Your task to perform on an android device: turn off notifications in google photos Image 0: 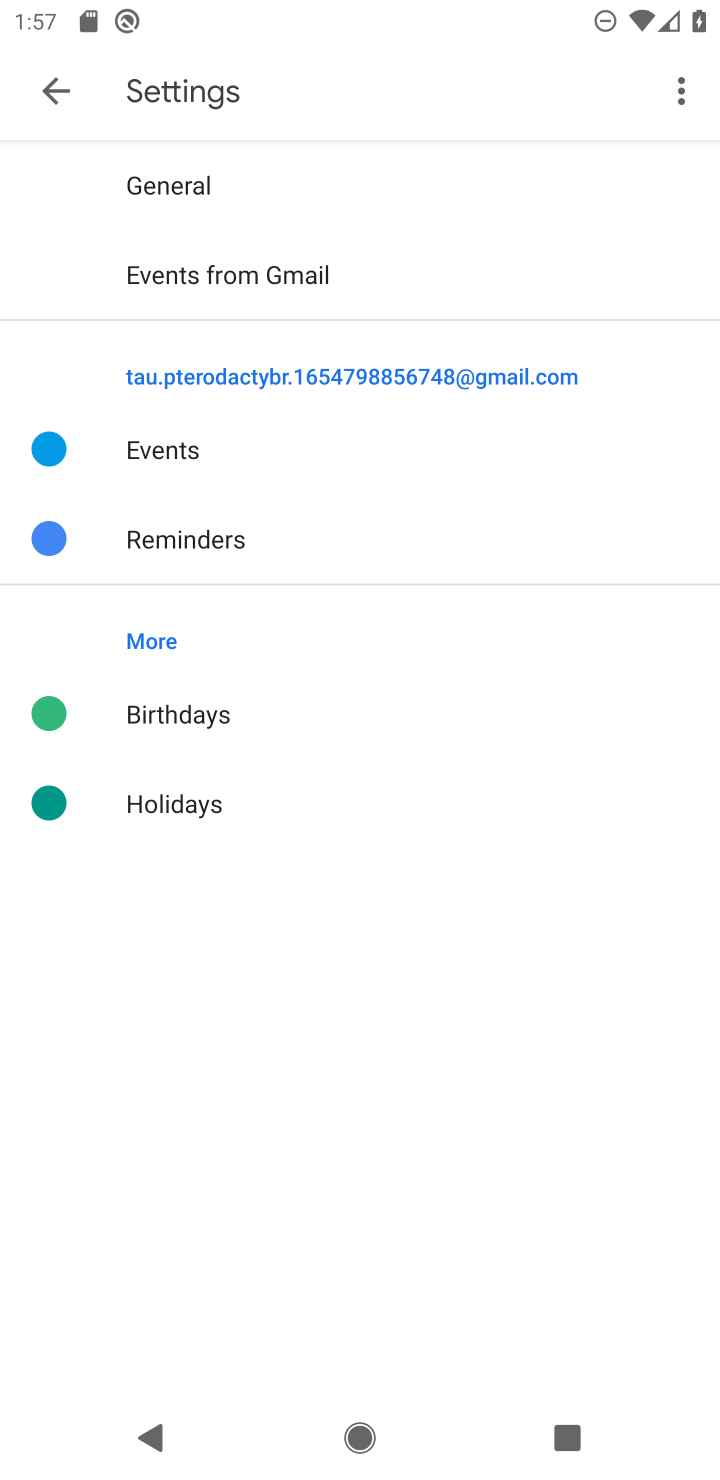
Step 0: press home button
Your task to perform on an android device: turn off notifications in google photos Image 1: 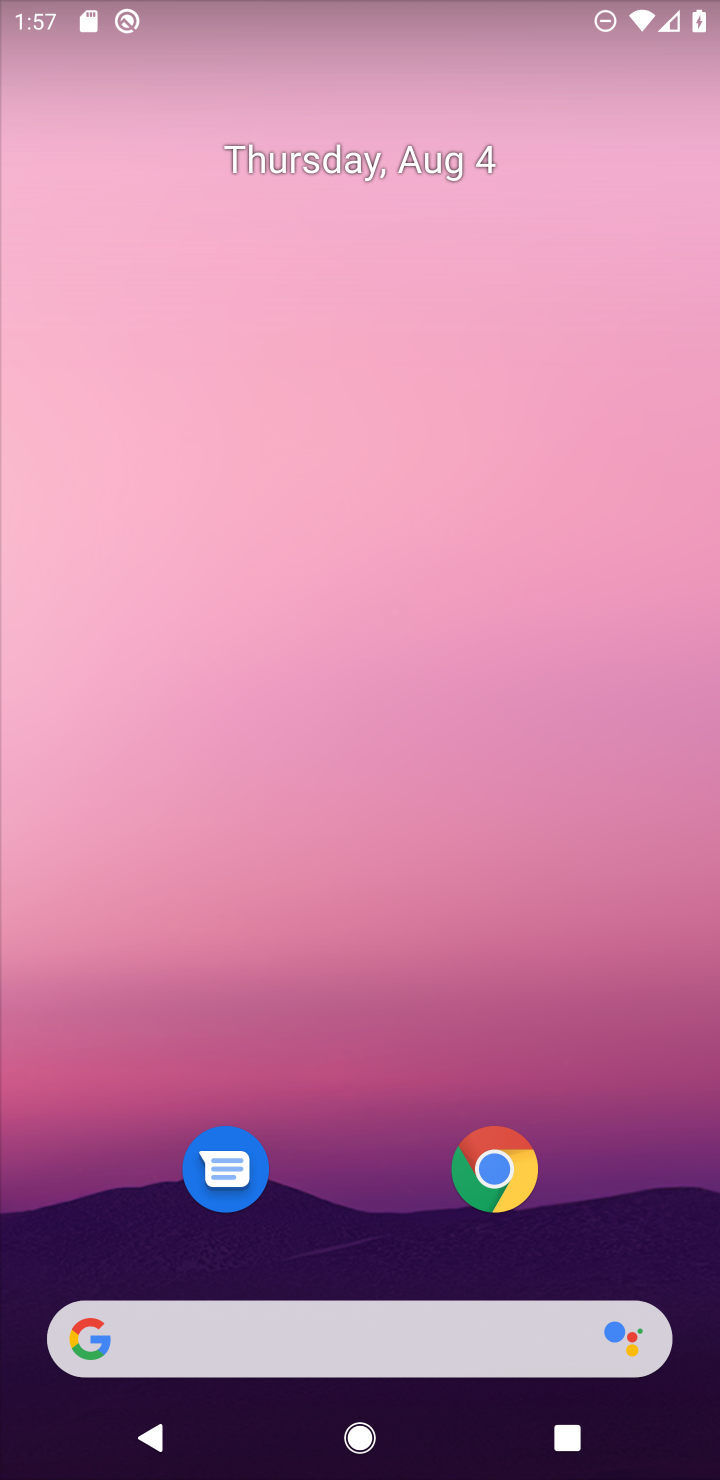
Step 1: drag from (385, 1072) to (488, 33)
Your task to perform on an android device: turn off notifications in google photos Image 2: 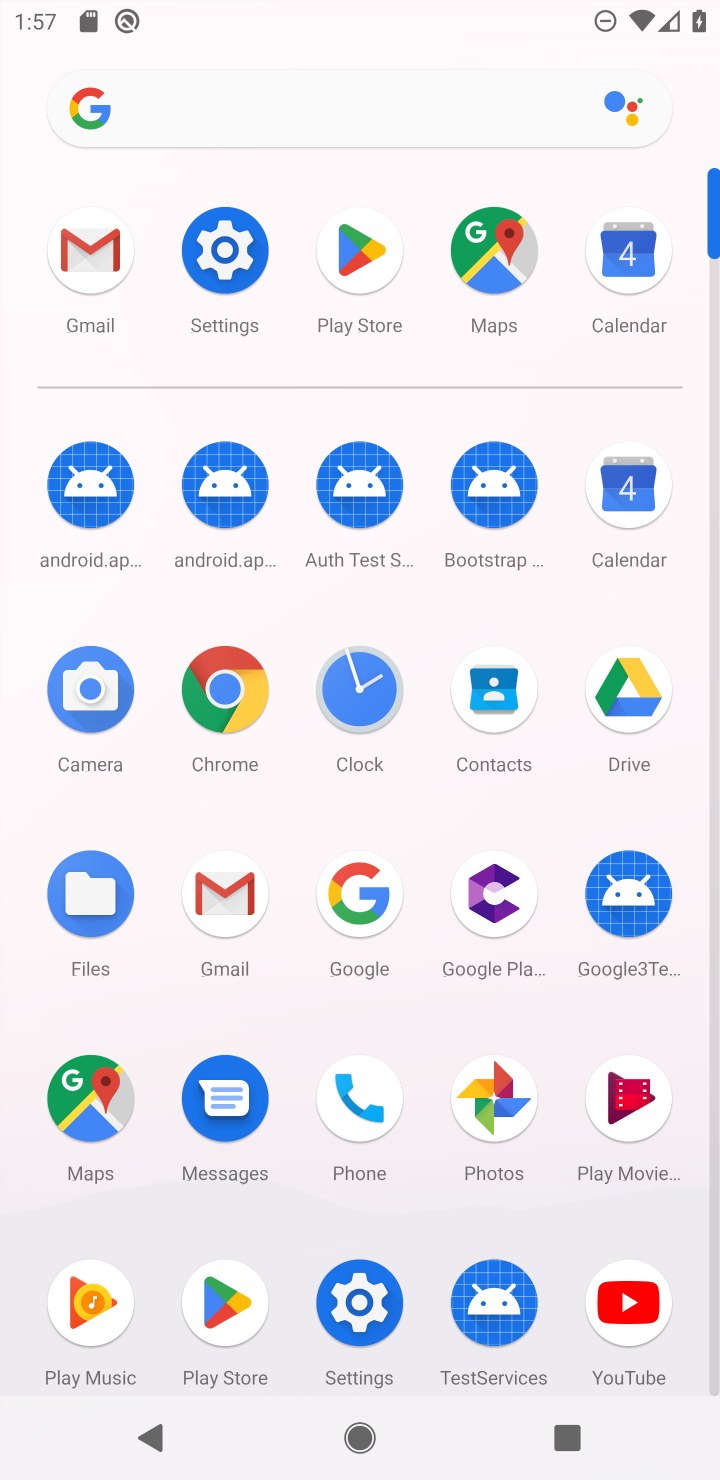
Step 2: click (493, 1113)
Your task to perform on an android device: turn off notifications in google photos Image 3: 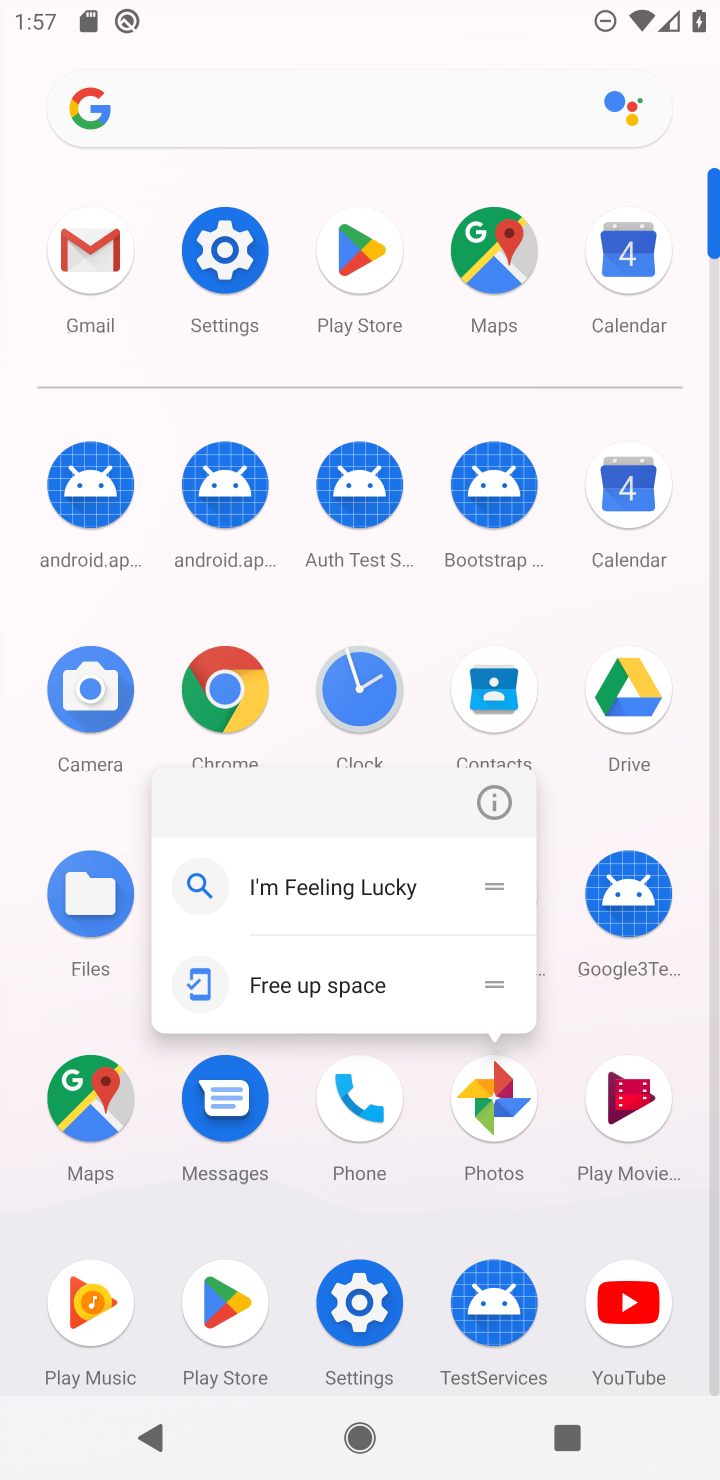
Step 3: click (497, 1110)
Your task to perform on an android device: turn off notifications in google photos Image 4: 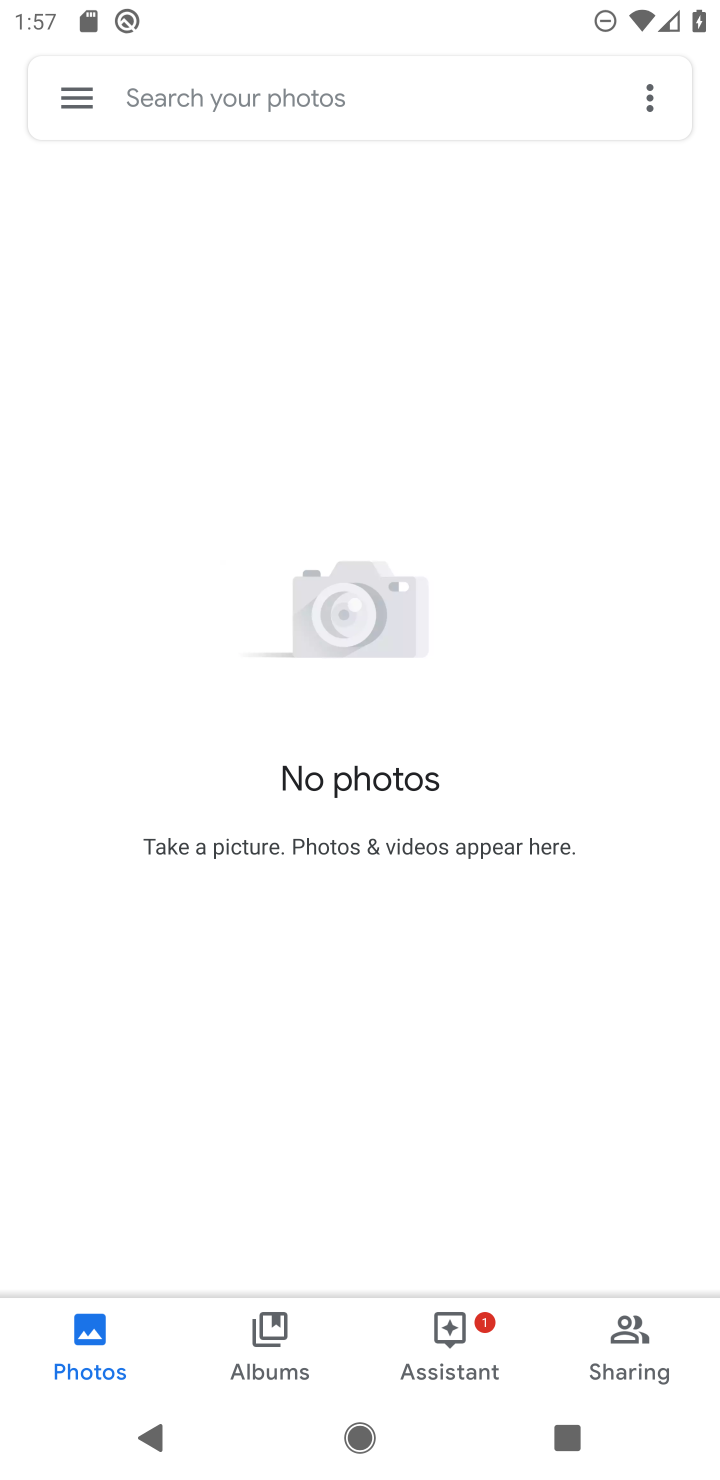
Step 4: click (77, 96)
Your task to perform on an android device: turn off notifications in google photos Image 5: 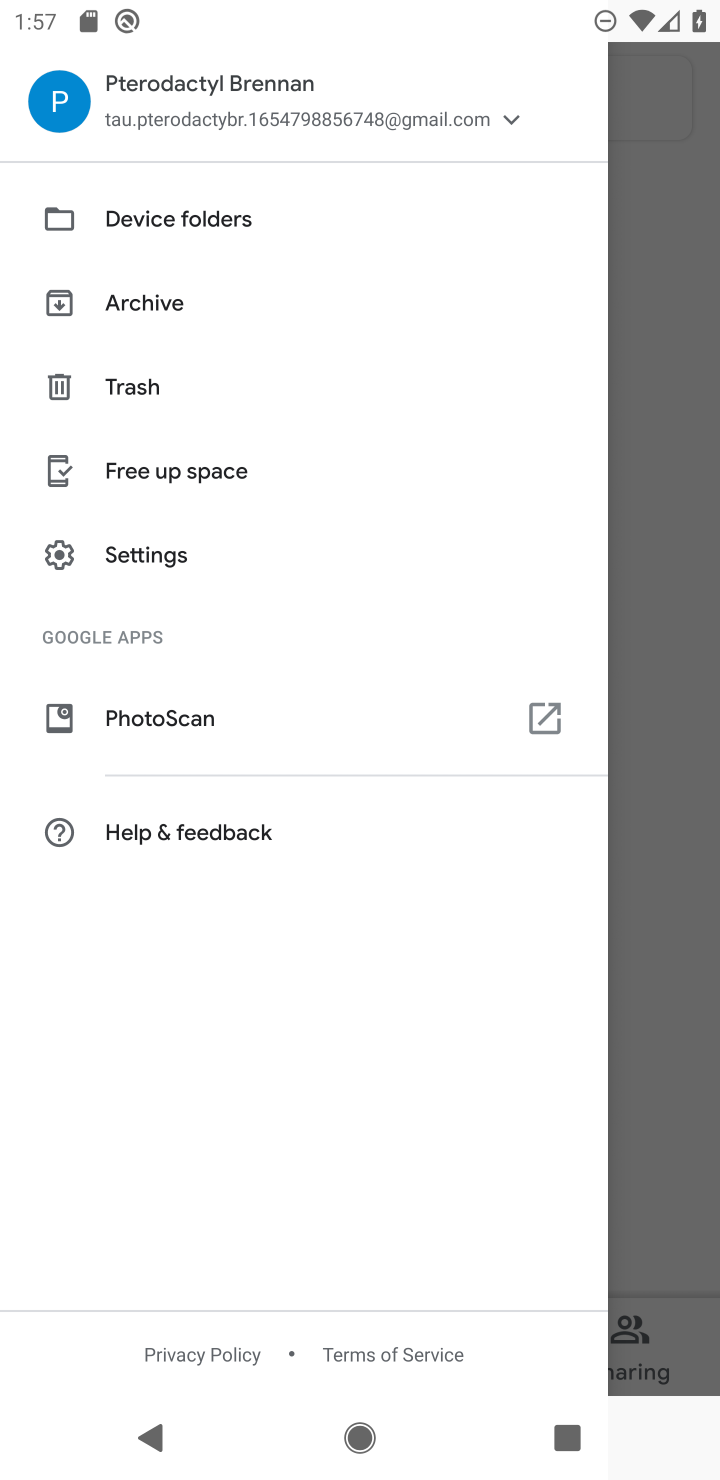
Step 5: click (108, 566)
Your task to perform on an android device: turn off notifications in google photos Image 6: 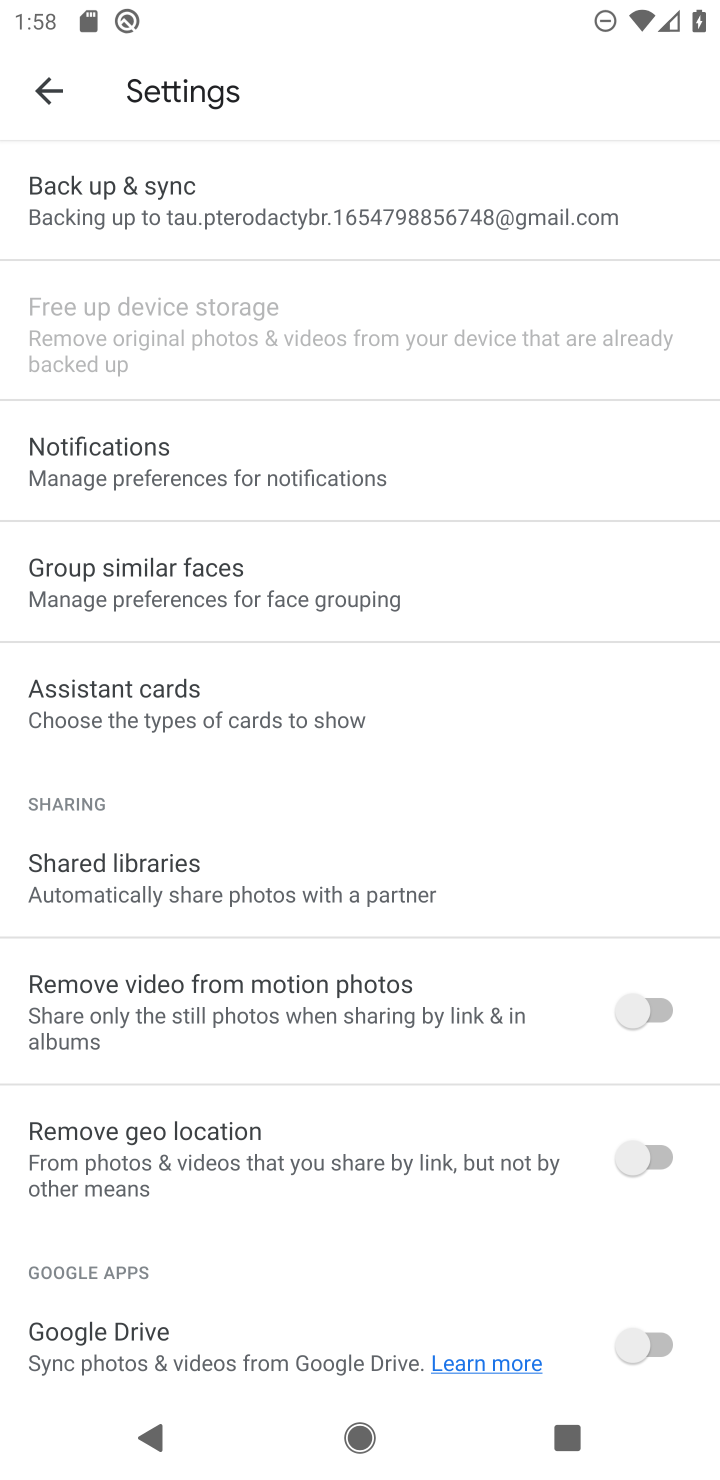
Step 6: click (112, 478)
Your task to perform on an android device: turn off notifications in google photos Image 7: 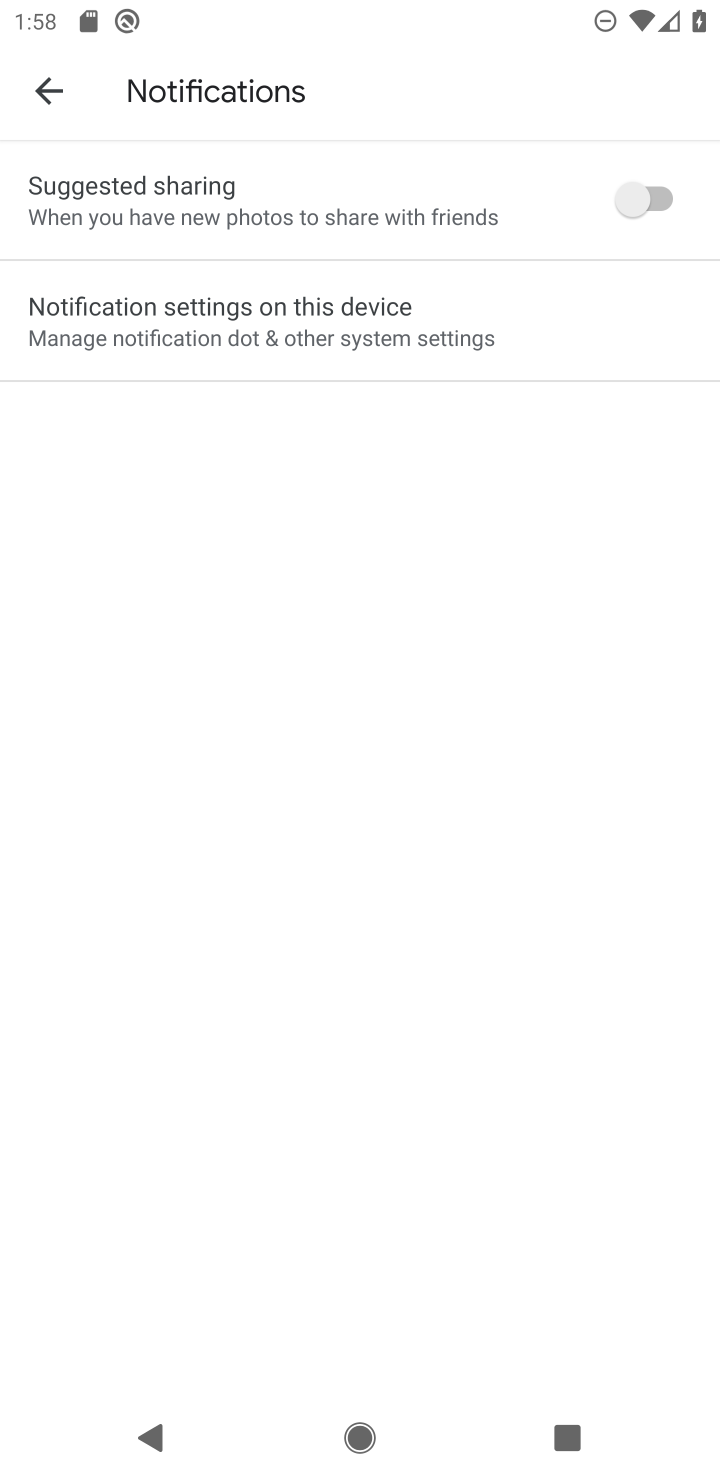
Step 7: click (203, 341)
Your task to perform on an android device: turn off notifications in google photos Image 8: 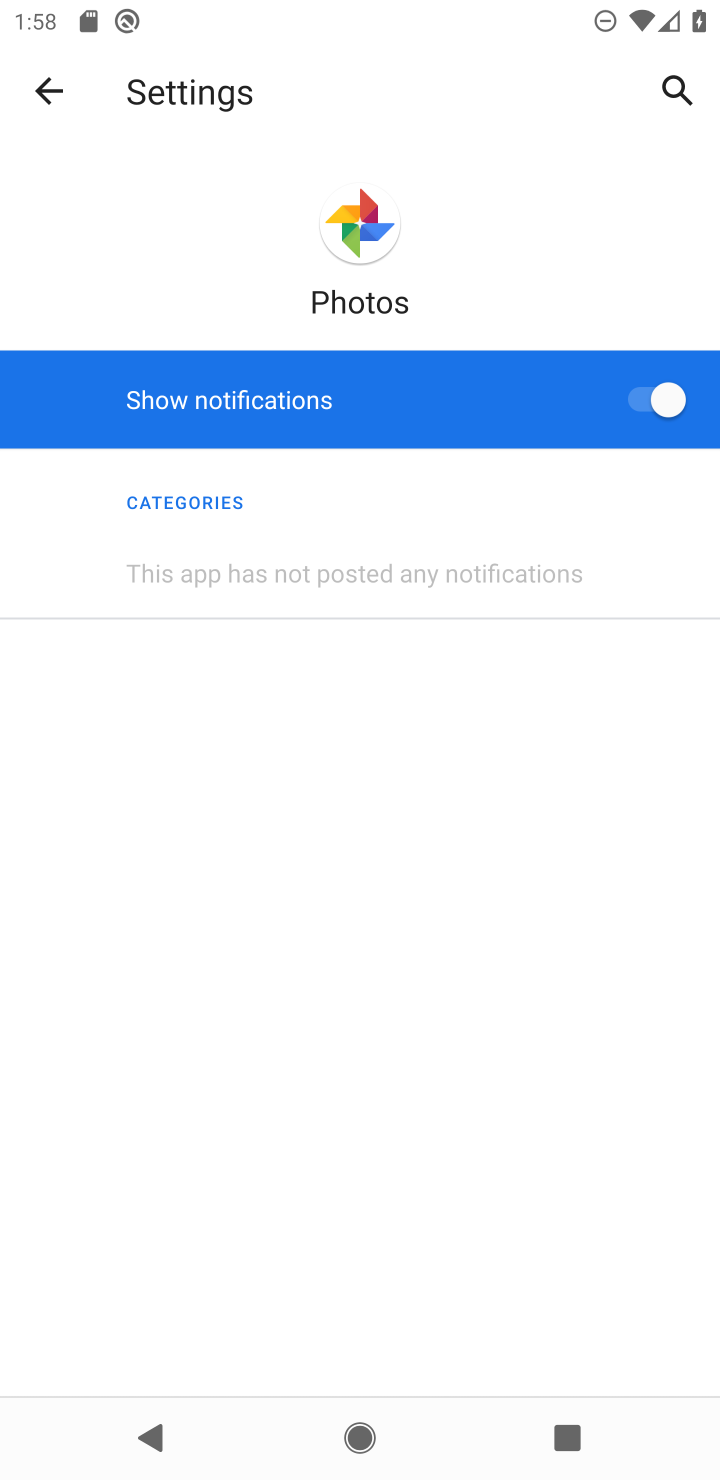
Step 8: click (665, 406)
Your task to perform on an android device: turn off notifications in google photos Image 9: 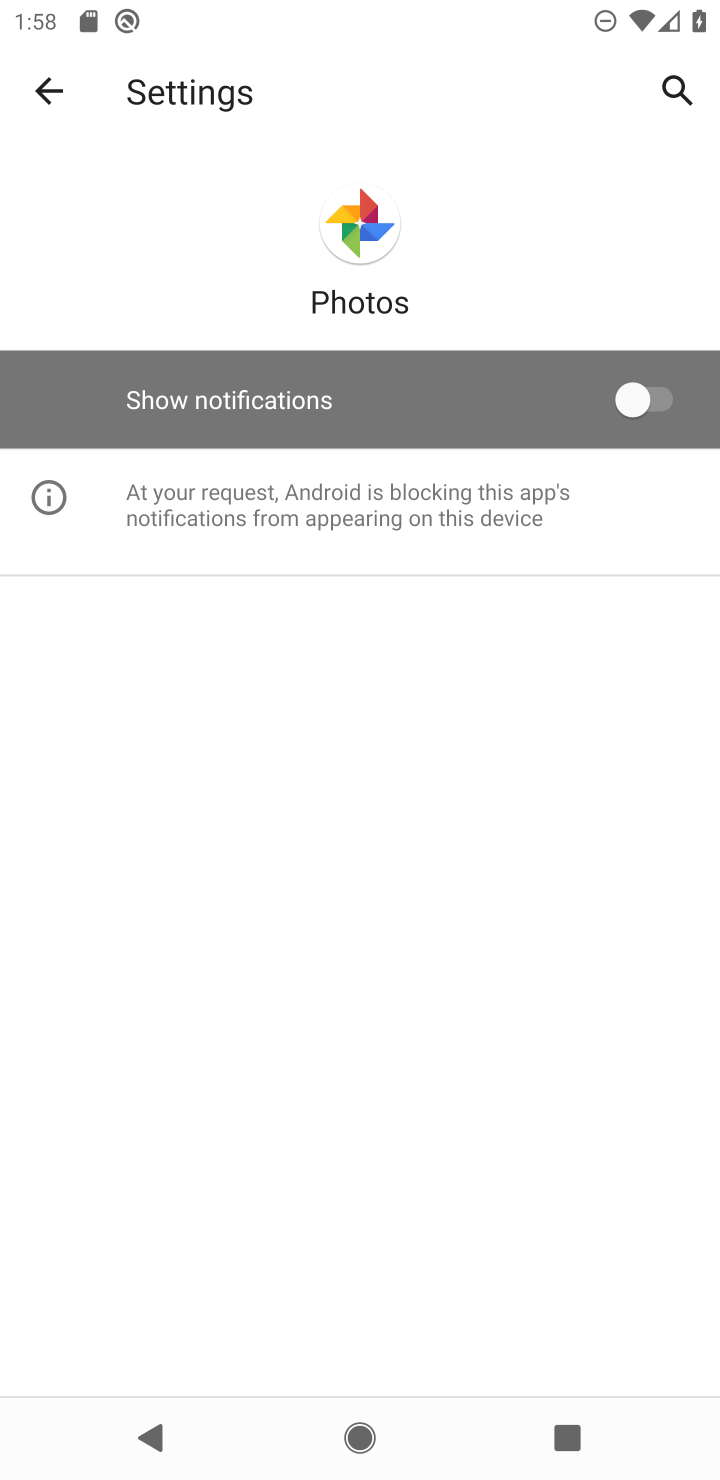
Step 9: task complete